Your task to perform on an android device: allow cookies in the chrome app Image 0: 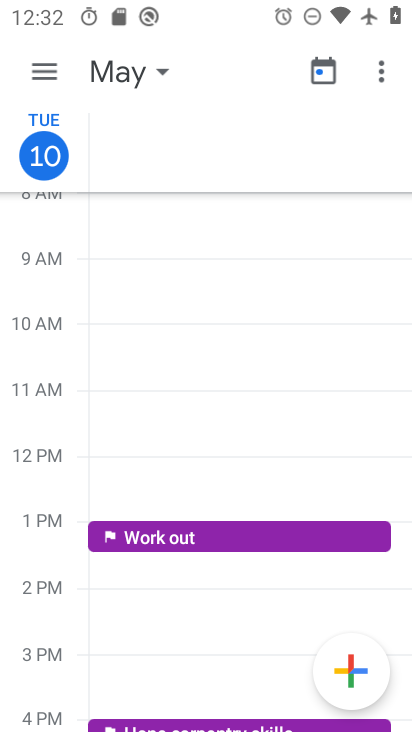
Step 0: press home button
Your task to perform on an android device: allow cookies in the chrome app Image 1: 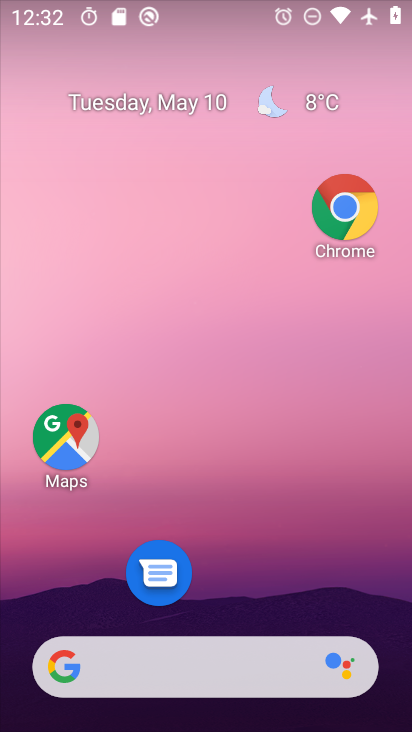
Step 1: click (407, 467)
Your task to perform on an android device: allow cookies in the chrome app Image 2: 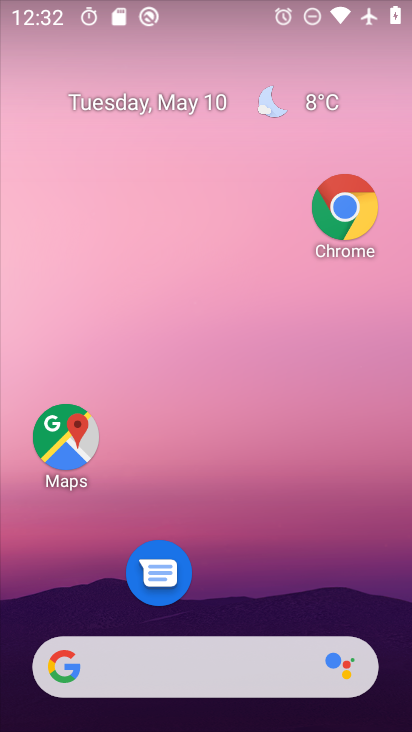
Step 2: drag from (334, 535) to (320, 111)
Your task to perform on an android device: allow cookies in the chrome app Image 3: 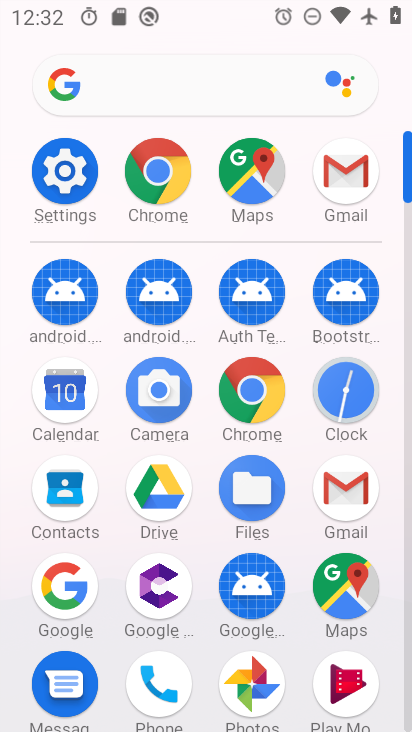
Step 3: click (252, 403)
Your task to perform on an android device: allow cookies in the chrome app Image 4: 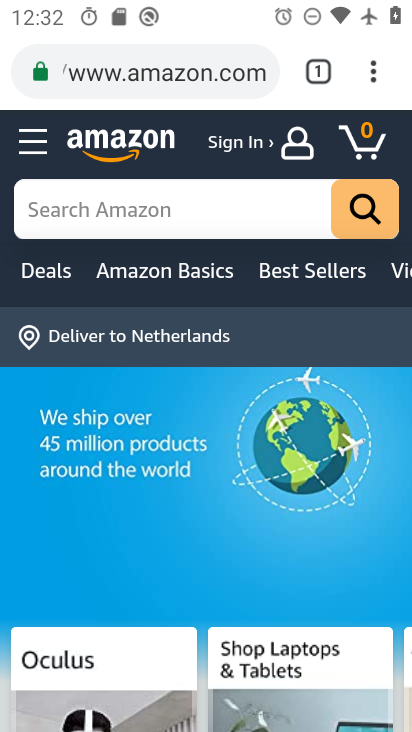
Step 4: drag from (377, 75) to (139, 567)
Your task to perform on an android device: allow cookies in the chrome app Image 5: 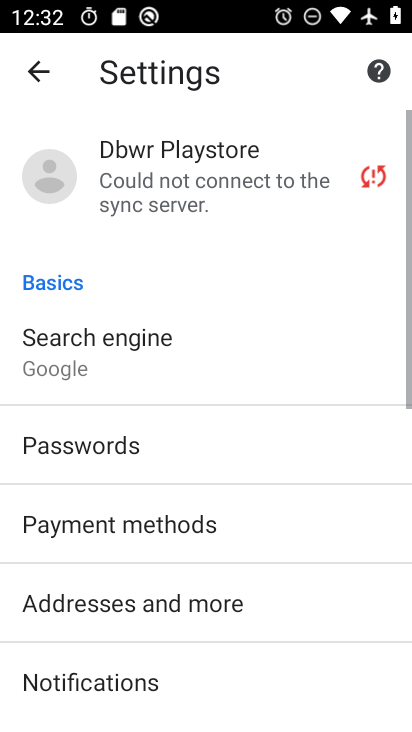
Step 5: drag from (243, 580) to (332, 182)
Your task to perform on an android device: allow cookies in the chrome app Image 6: 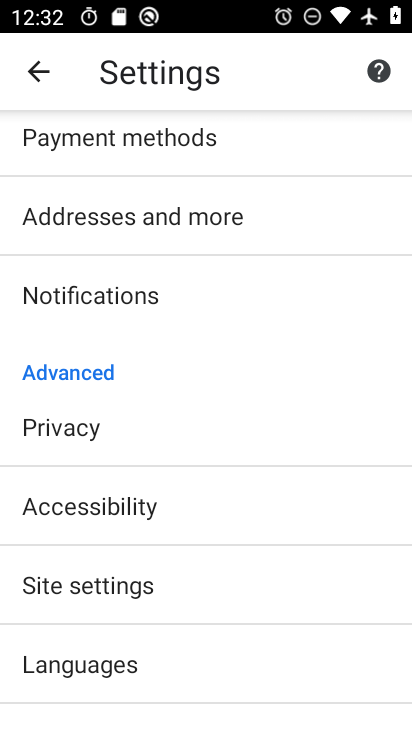
Step 6: click (182, 580)
Your task to perform on an android device: allow cookies in the chrome app Image 7: 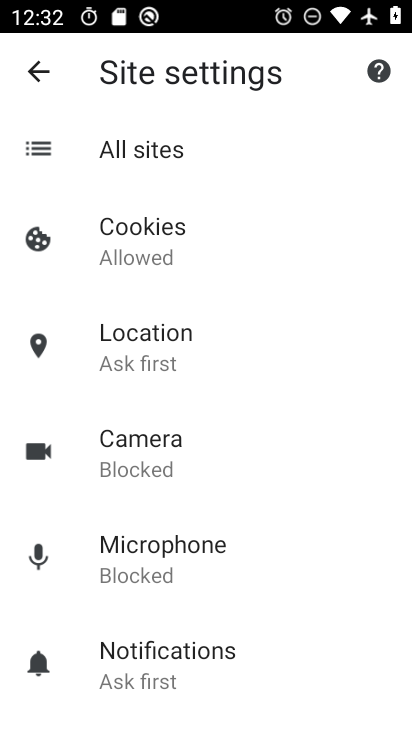
Step 7: click (283, 574)
Your task to perform on an android device: allow cookies in the chrome app Image 8: 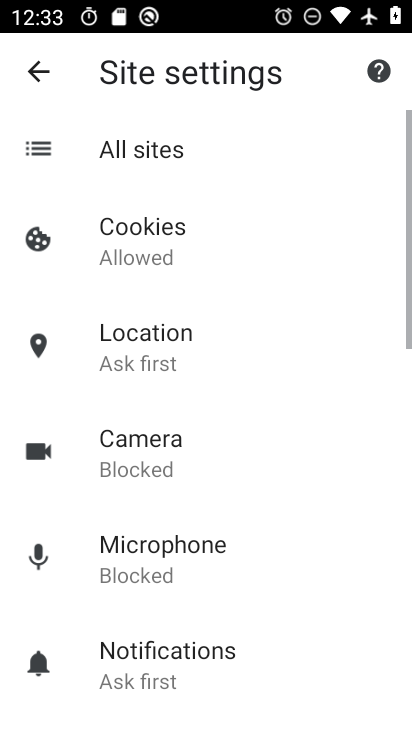
Step 8: click (131, 250)
Your task to perform on an android device: allow cookies in the chrome app Image 9: 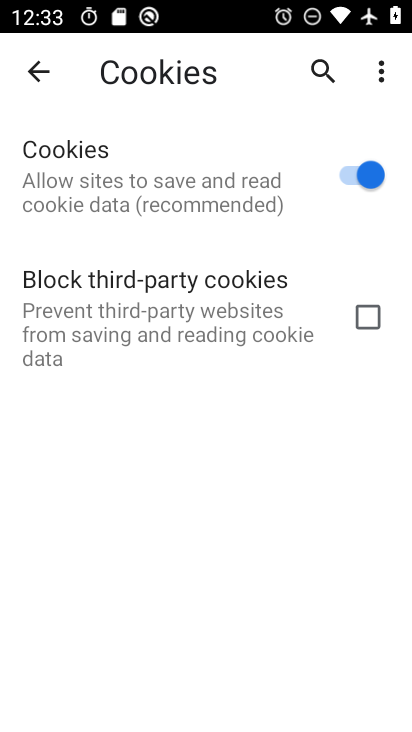
Step 9: task complete